Your task to perform on an android device: Add "lenovo thinkpad" to the cart on costco, then select checkout. Image 0: 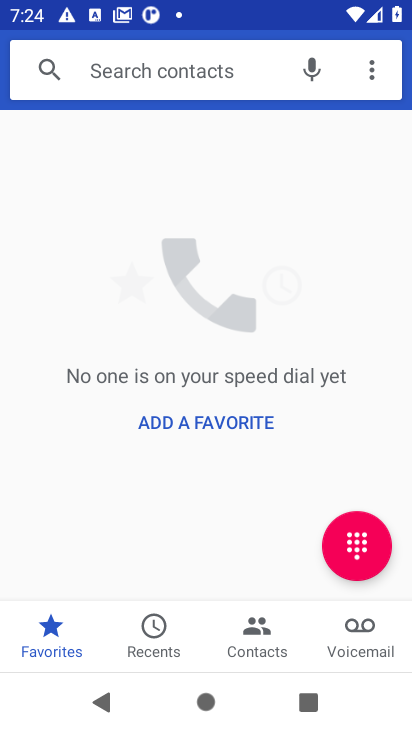
Step 0: press home button
Your task to perform on an android device: Add "lenovo thinkpad" to the cart on costco, then select checkout. Image 1: 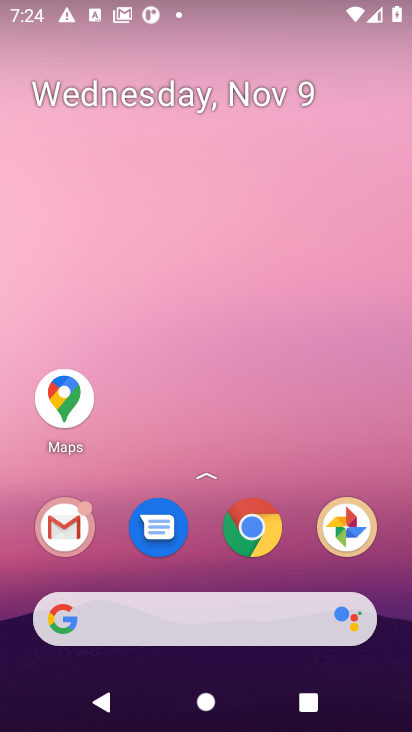
Step 1: click (250, 523)
Your task to perform on an android device: Add "lenovo thinkpad" to the cart on costco, then select checkout. Image 2: 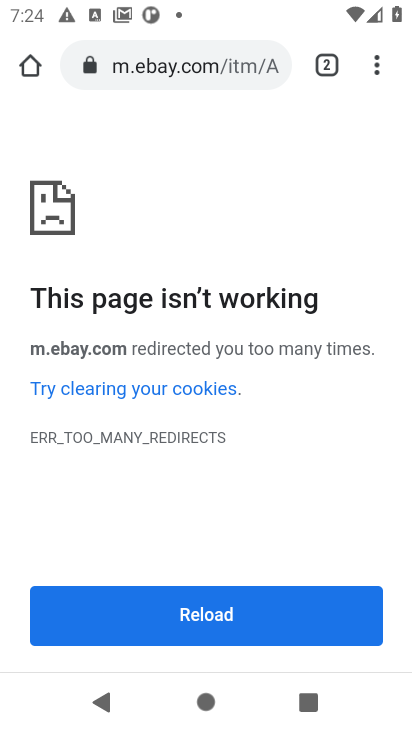
Step 2: click (188, 64)
Your task to perform on an android device: Add "lenovo thinkpad" to the cart on costco, then select checkout. Image 3: 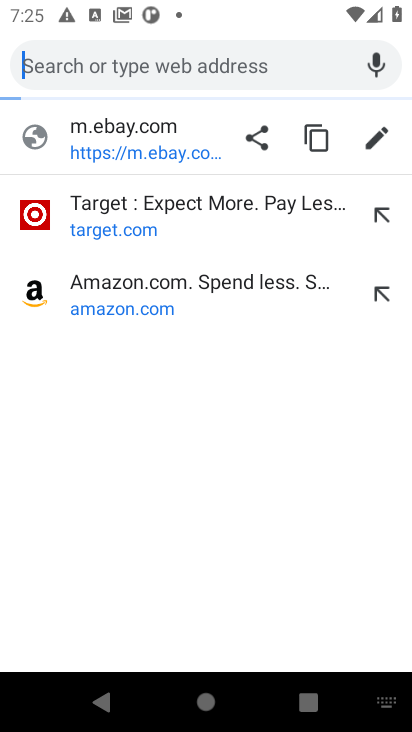
Step 3: type "costco"
Your task to perform on an android device: Add "lenovo thinkpad" to the cart on costco, then select checkout. Image 4: 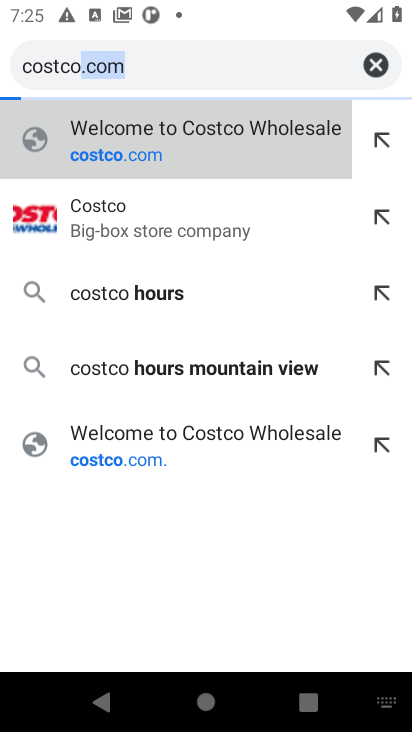
Step 4: click (121, 227)
Your task to perform on an android device: Add "lenovo thinkpad" to the cart on costco, then select checkout. Image 5: 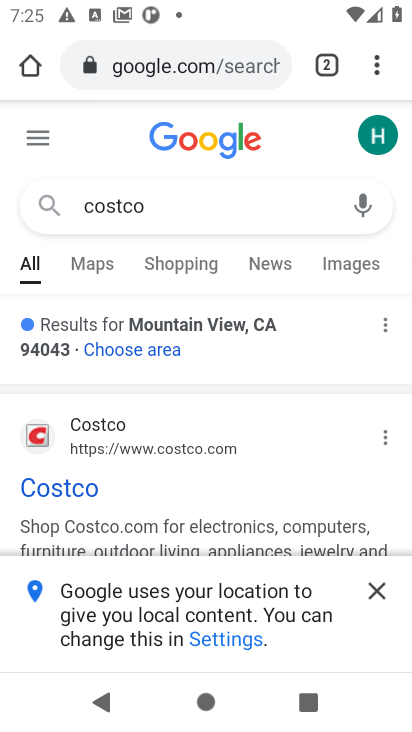
Step 5: click (70, 497)
Your task to perform on an android device: Add "lenovo thinkpad" to the cart on costco, then select checkout. Image 6: 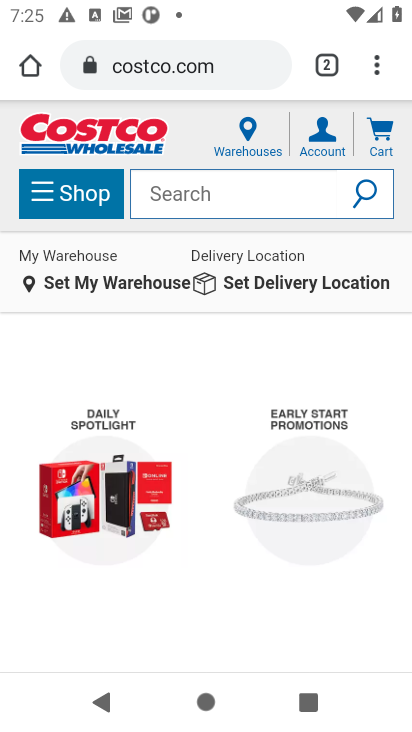
Step 6: click (260, 197)
Your task to perform on an android device: Add "lenovo thinkpad" to the cart on costco, then select checkout. Image 7: 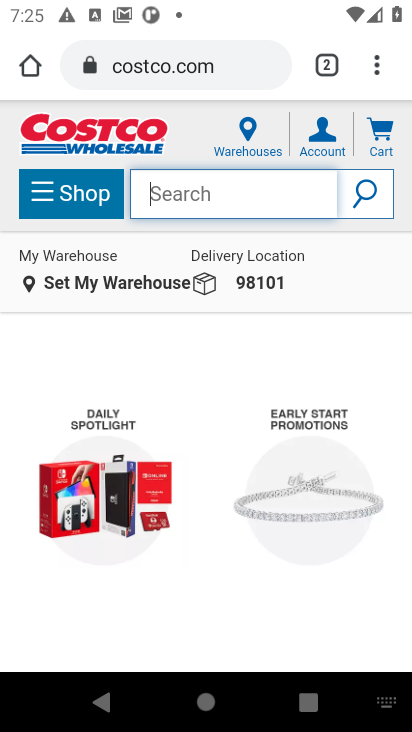
Step 7: type "lenovo thinkpad"
Your task to perform on an android device: Add "lenovo thinkpad" to the cart on costco, then select checkout. Image 8: 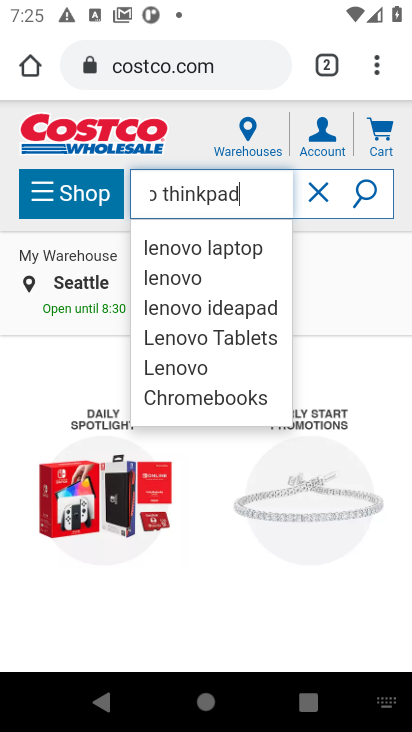
Step 8: click (372, 193)
Your task to perform on an android device: Add "lenovo thinkpad" to the cart on costco, then select checkout. Image 9: 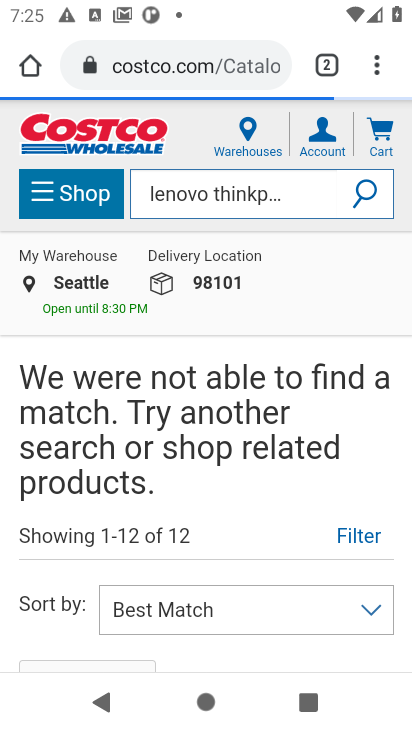
Step 9: task complete